Your task to perform on an android device: turn on javascript in the chrome app Image 0: 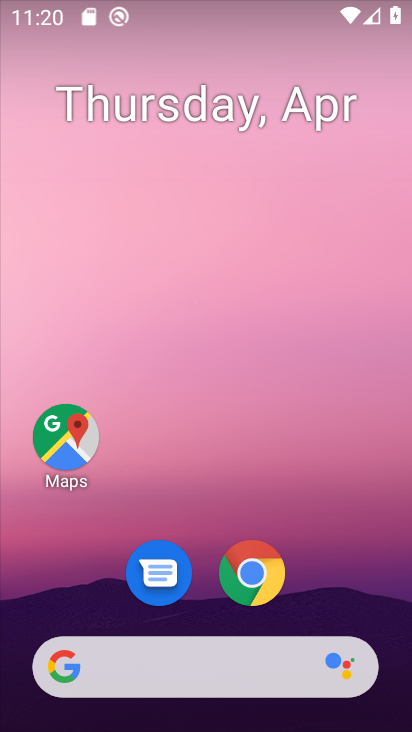
Step 0: drag from (157, 671) to (330, 0)
Your task to perform on an android device: turn on javascript in the chrome app Image 1: 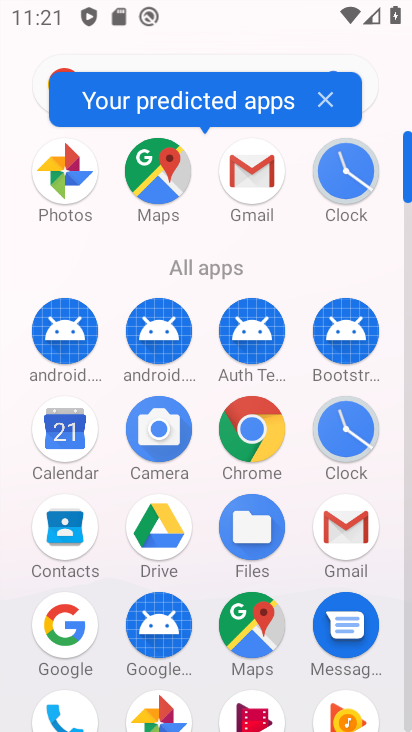
Step 1: click (242, 443)
Your task to perform on an android device: turn on javascript in the chrome app Image 2: 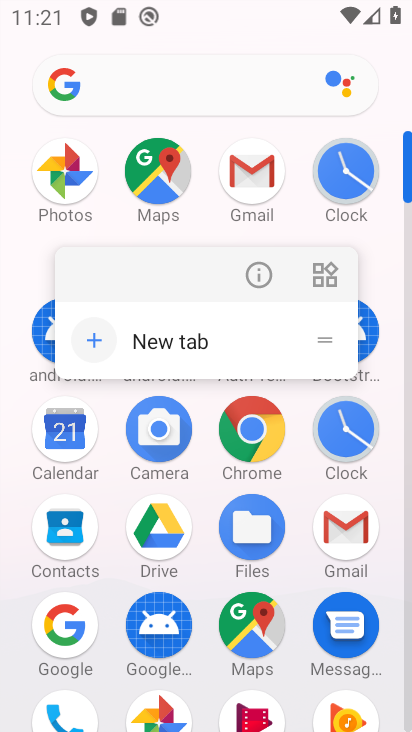
Step 2: click (265, 419)
Your task to perform on an android device: turn on javascript in the chrome app Image 3: 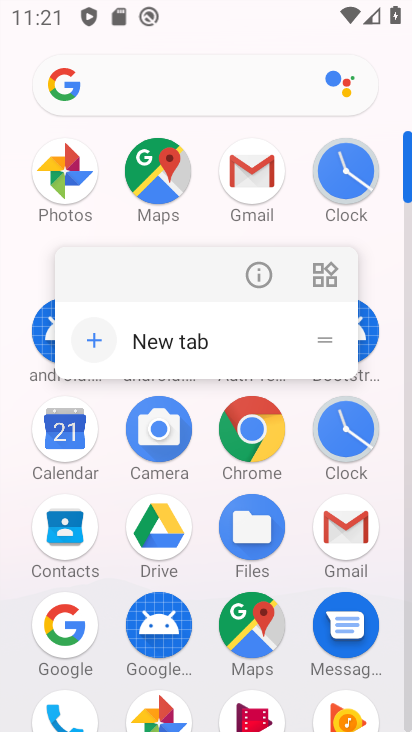
Step 3: click (245, 443)
Your task to perform on an android device: turn on javascript in the chrome app Image 4: 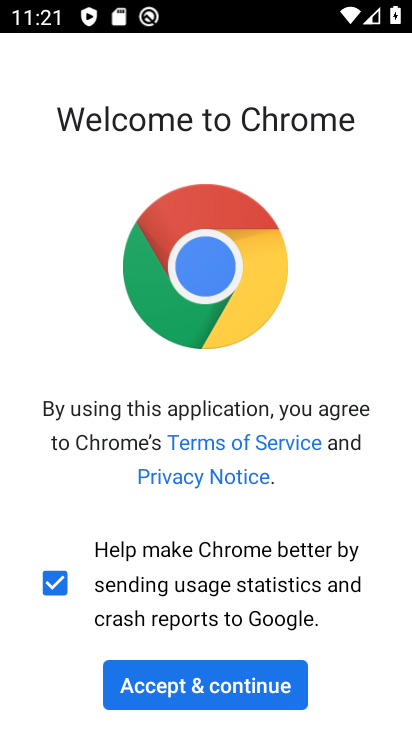
Step 4: click (200, 688)
Your task to perform on an android device: turn on javascript in the chrome app Image 5: 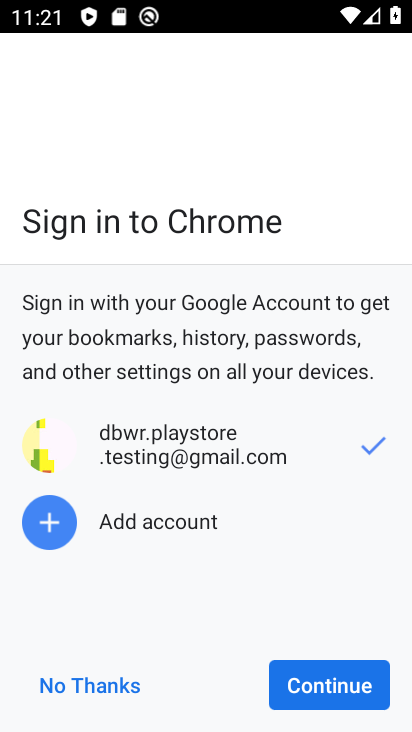
Step 5: click (309, 680)
Your task to perform on an android device: turn on javascript in the chrome app Image 6: 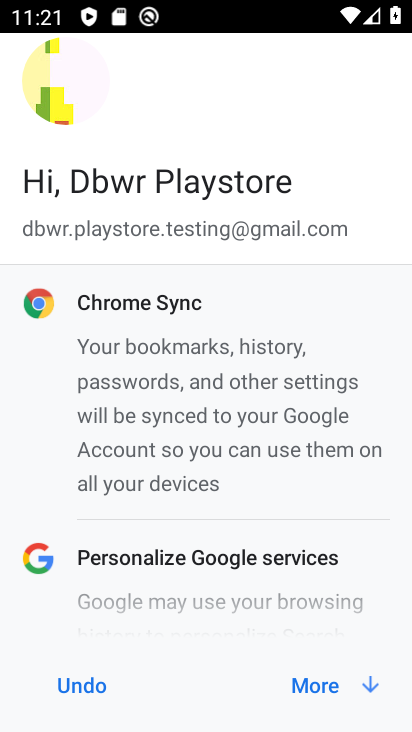
Step 6: click (308, 689)
Your task to perform on an android device: turn on javascript in the chrome app Image 7: 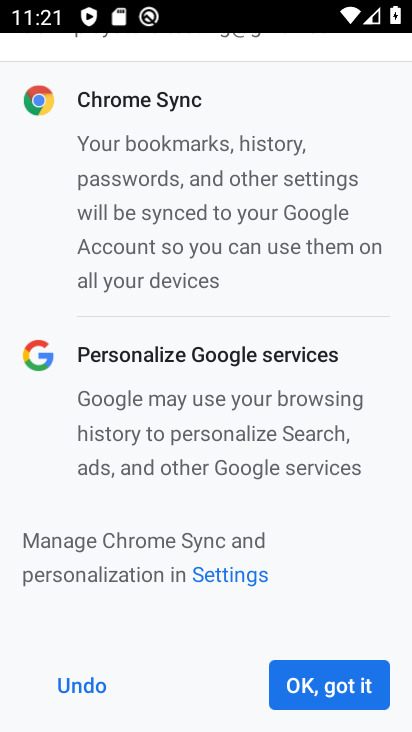
Step 7: click (308, 689)
Your task to perform on an android device: turn on javascript in the chrome app Image 8: 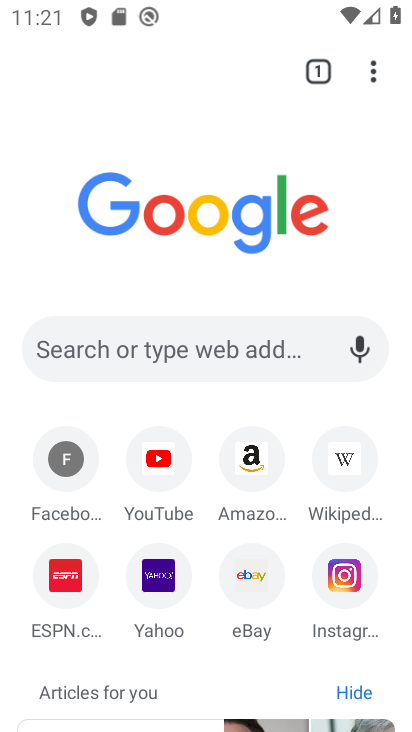
Step 8: click (362, 82)
Your task to perform on an android device: turn on javascript in the chrome app Image 9: 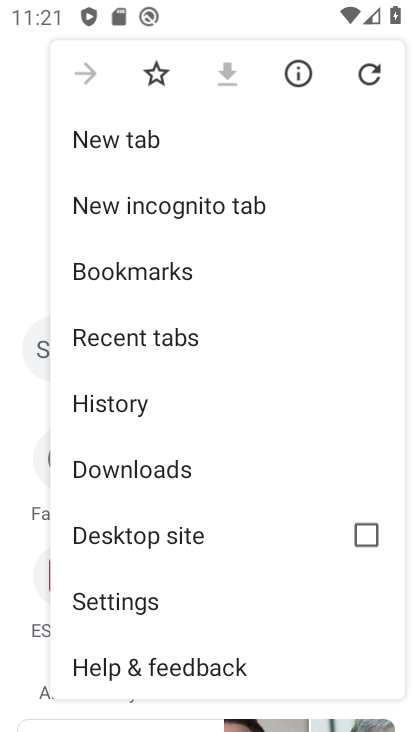
Step 9: click (149, 601)
Your task to perform on an android device: turn on javascript in the chrome app Image 10: 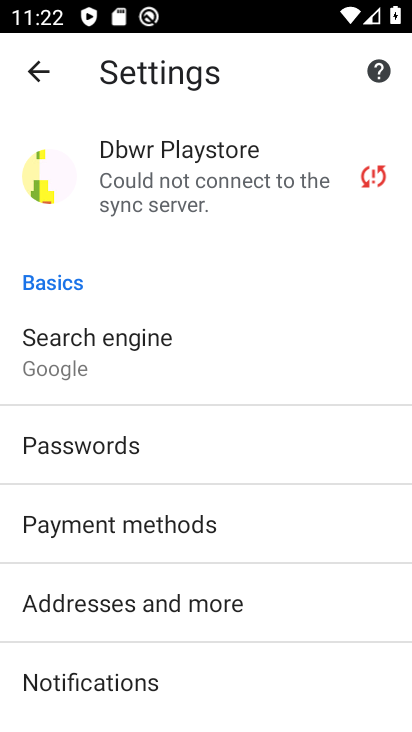
Step 10: drag from (131, 645) to (270, 279)
Your task to perform on an android device: turn on javascript in the chrome app Image 11: 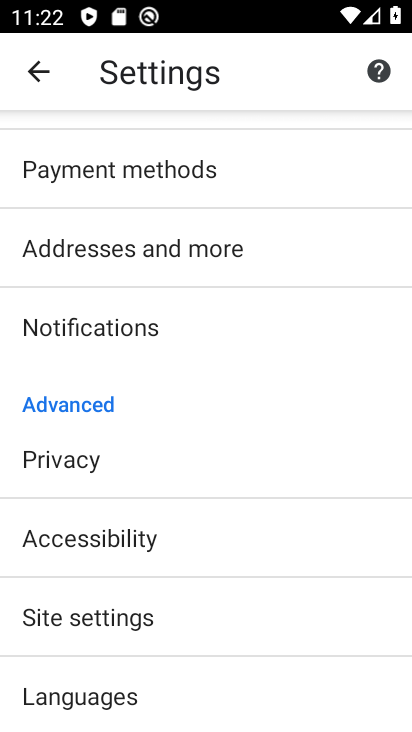
Step 11: click (131, 616)
Your task to perform on an android device: turn on javascript in the chrome app Image 12: 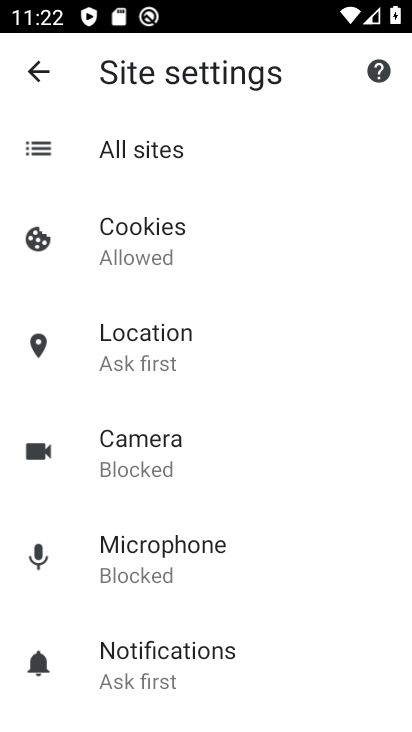
Step 12: drag from (221, 352) to (301, 87)
Your task to perform on an android device: turn on javascript in the chrome app Image 13: 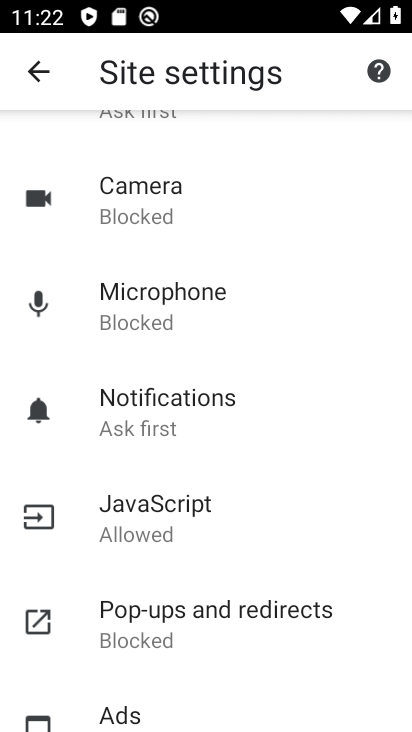
Step 13: click (131, 514)
Your task to perform on an android device: turn on javascript in the chrome app Image 14: 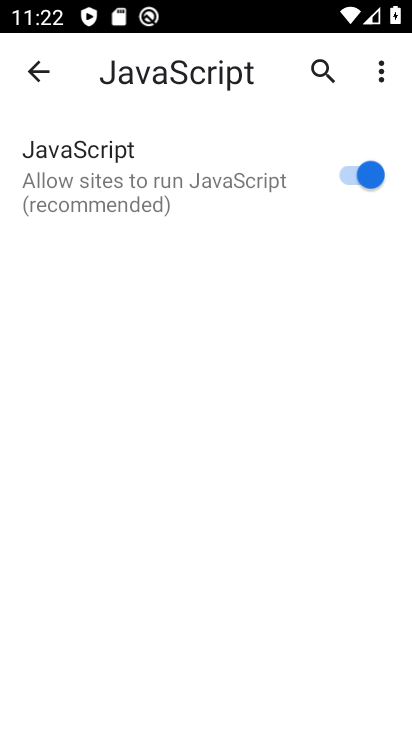
Step 14: task complete